Your task to perform on an android device: find which apps use the phone's location Image 0: 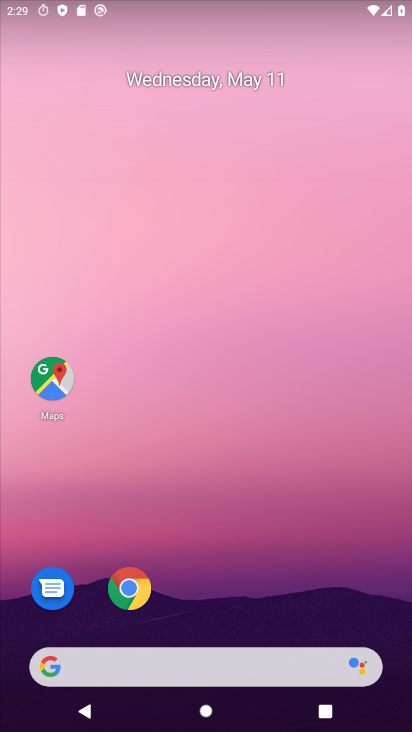
Step 0: press home button
Your task to perform on an android device: find which apps use the phone's location Image 1: 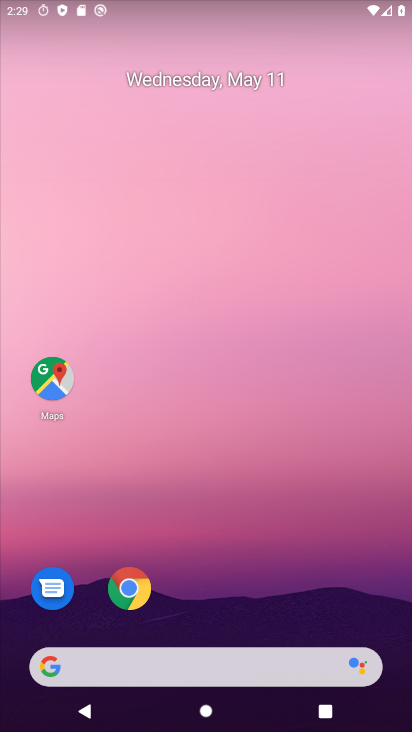
Step 1: drag from (291, 577) to (260, 55)
Your task to perform on an android device: find which apps use the phone's location Image 2: 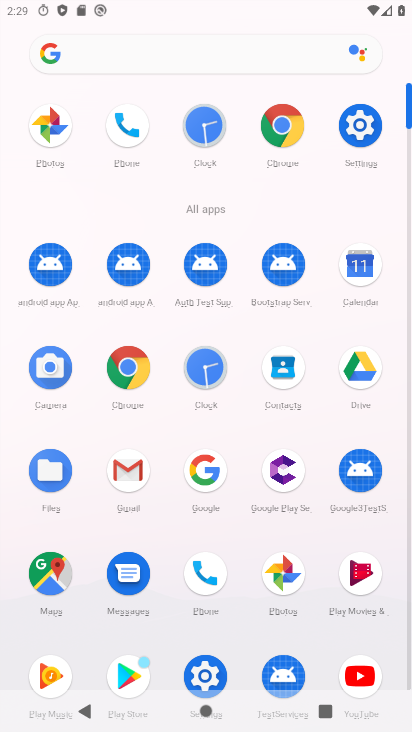
Step 2: click (200, 576)
Your task to perform on an android device: find which apps use the phone's location Image 3: 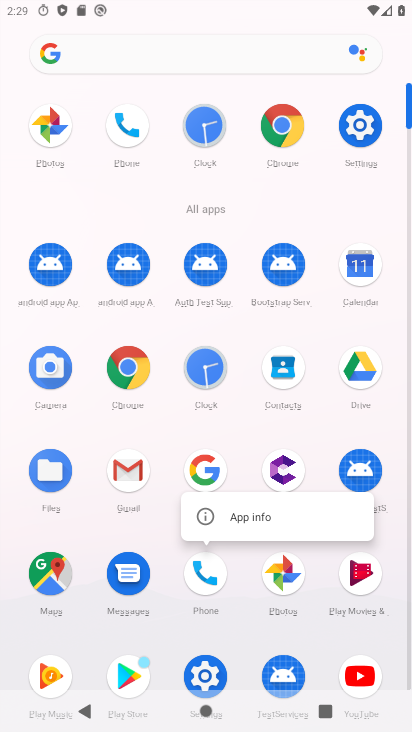
Step 3: click (255, 513)
Your task to perform on an android device: find which apps use the phone's location Image 4: 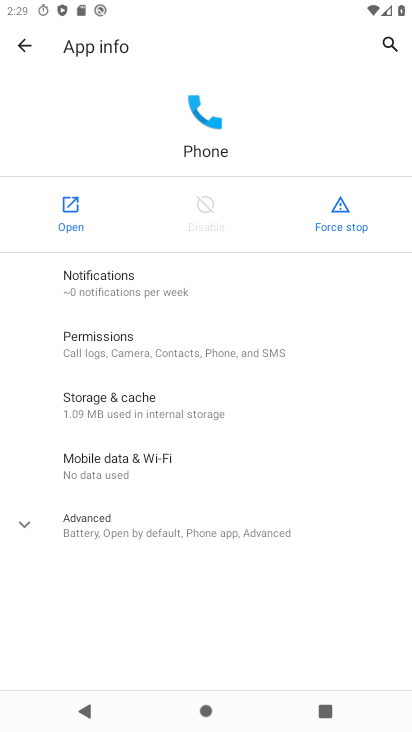
Step 4: click (139, 527)
Your task to perform on an android device: find which apps use the phone's location Image 5: 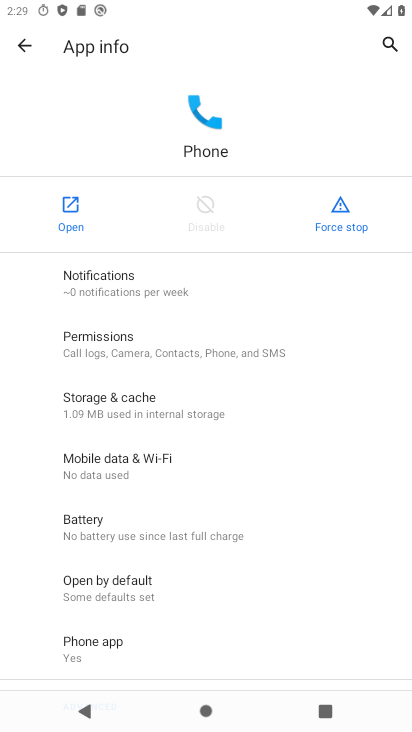
Step 5: drag from (273, 622) to (270, 318)
Your task to perform on an android device: find which apps use the phone's location Image 6: 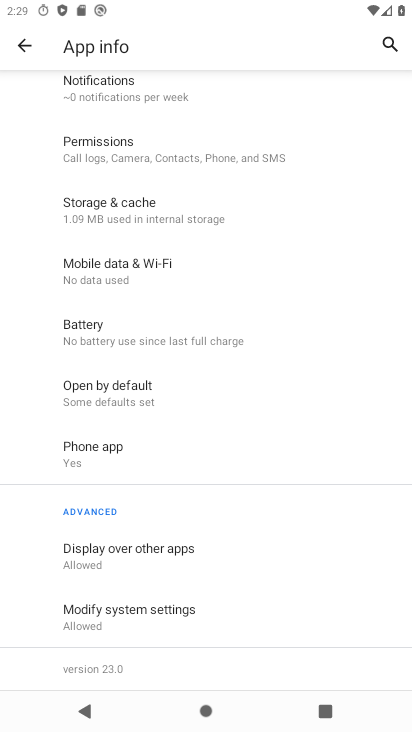
Step 6: click (205, 158)
Your task to perform on an android device: find which apps use the phone's location Image 7: 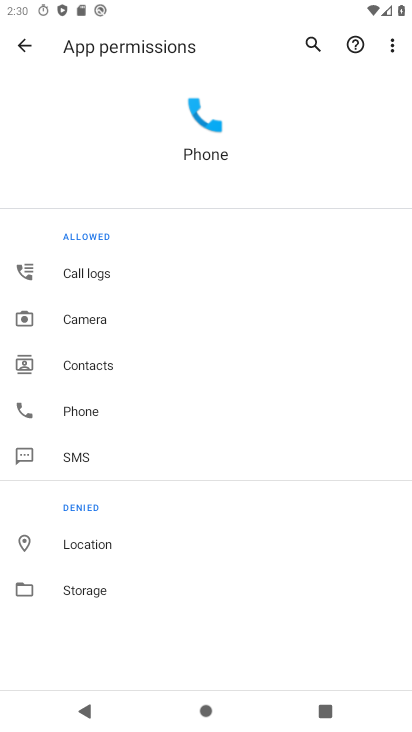
Step 7: click (80, 545)
Your task to perform on an android device: find which apps use the phone's location Image 8: 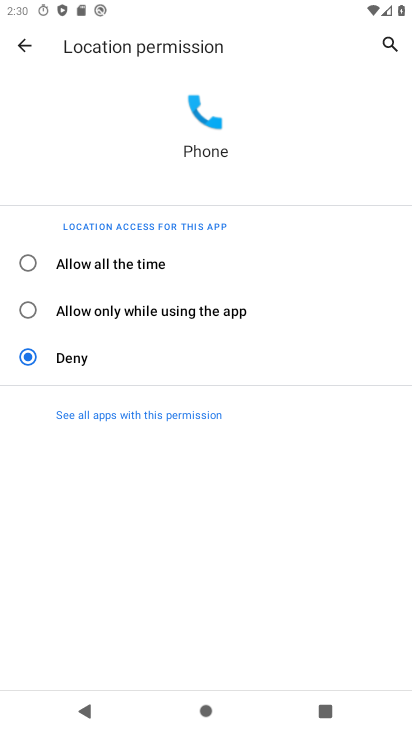
Step 8: task complete